Your task to perform on an android device: clear all cookies in the chrome app Image 0: 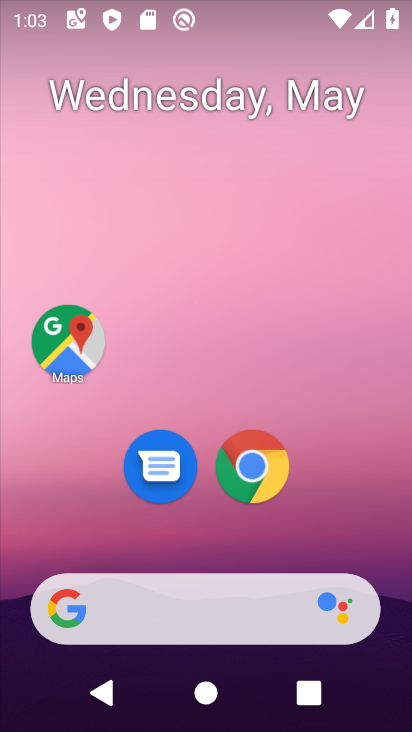
Step 0: click (261, 468)
Your task to perform on an android device: clear all cookies in the chrome app Image 1: 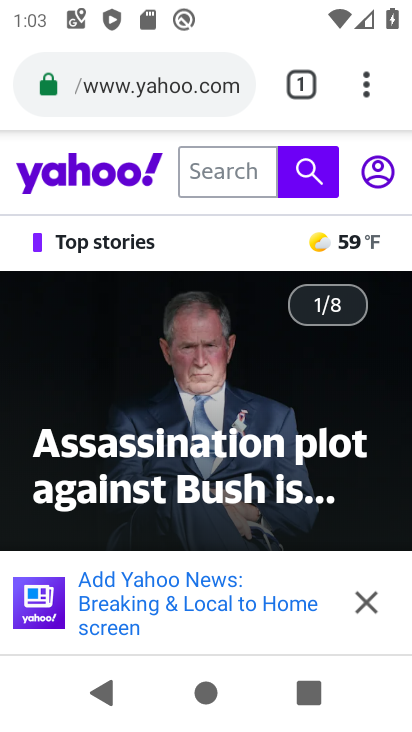
Step 1: click (359, 83)
Your task to perform on an android device: clear all cookies in the chrome app Image 2: 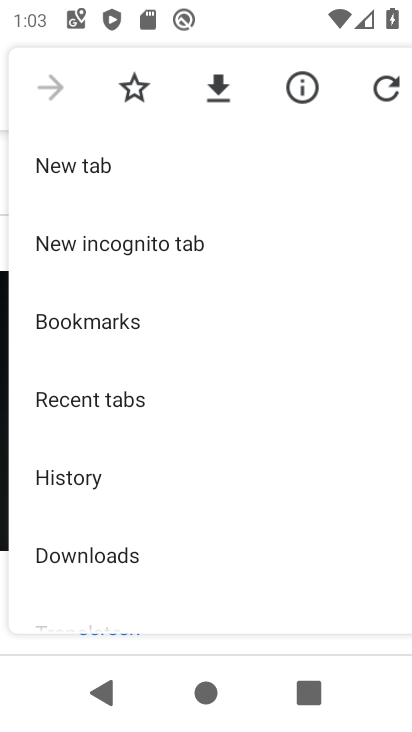
Step 2: drag from (256, 538) to (248, 74)
Your task to perform on an android device: clear all cookies in the chrome app Image 3: 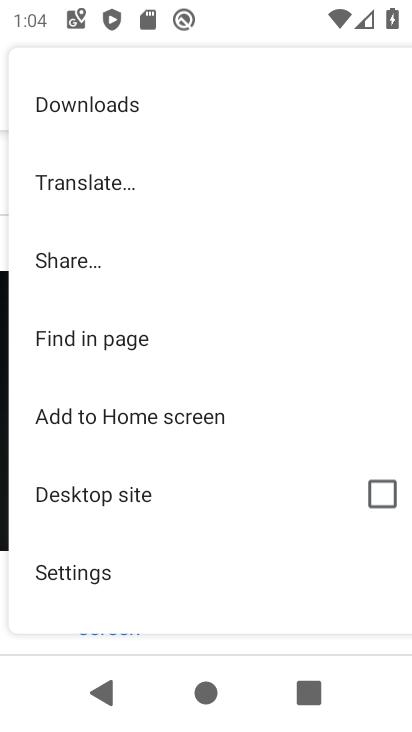
Step 3: drag from (196, 525) to (223, 139)
Your task to perform on an android device: clear all cookies in the chrome app Image 4: 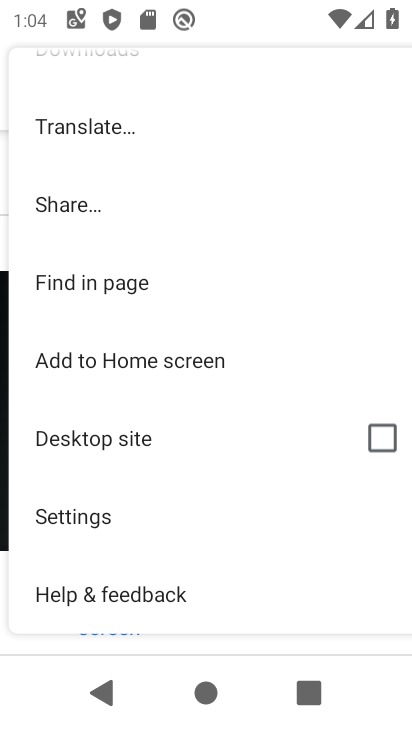
Step 4: click (112, 519)
Your task to perform on an android device: clear all cookies in the chrome app Image 5: 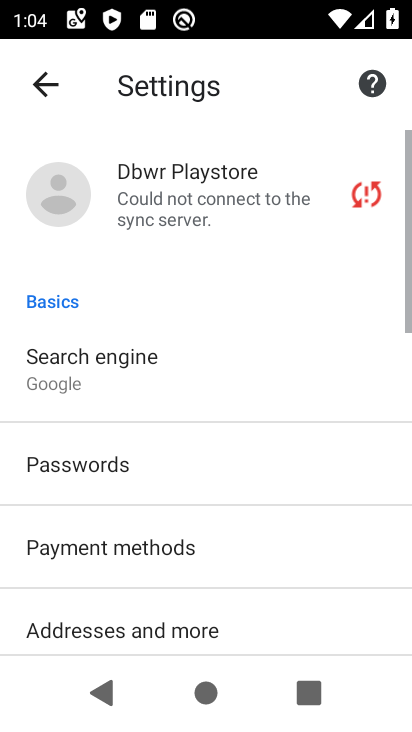
Step 5: drag from (212, 570) to (267, 228)
Your task to perform on an android device: clear all cookies in the chrome app Image 6: 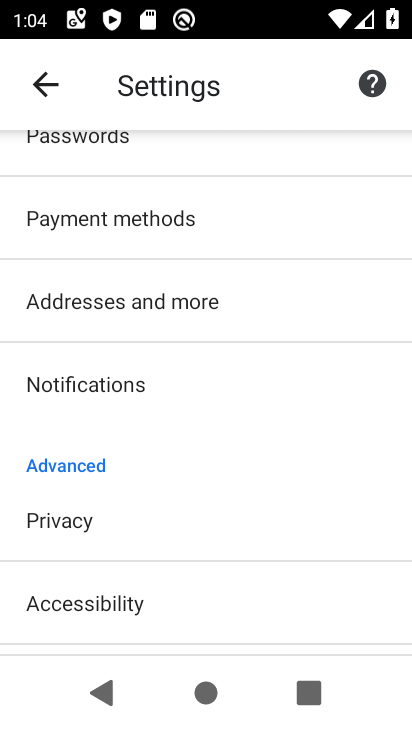
Step 6: click (88, 519)
Your task to perform on an android device: clear all cookies in the chrome app Image 7: 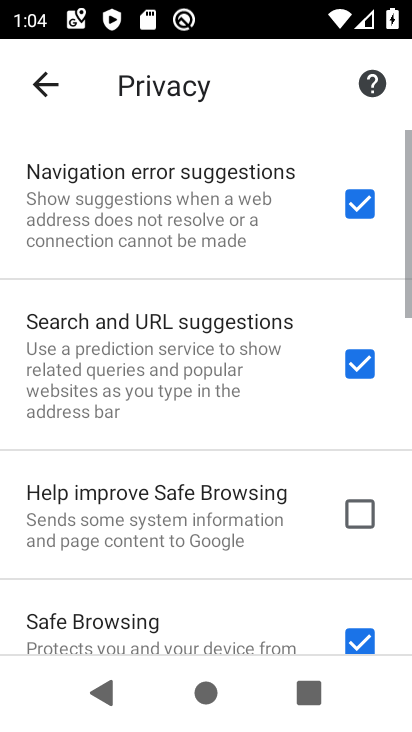
Step 7: drag from (224, 571) to (246, 20)
Your task to perform on an android device: clear all cookies in the chrome app Image 8: 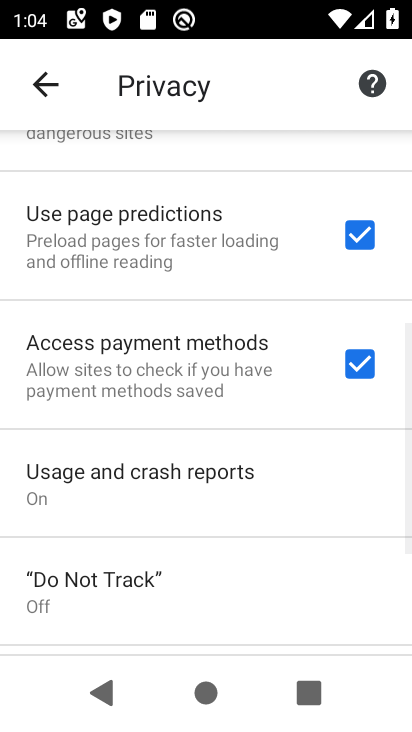
Step 8: drag from (189, 534) to (191, 183)
Your task to perform on an android device: clear all cookies in the chrome app Image 9: 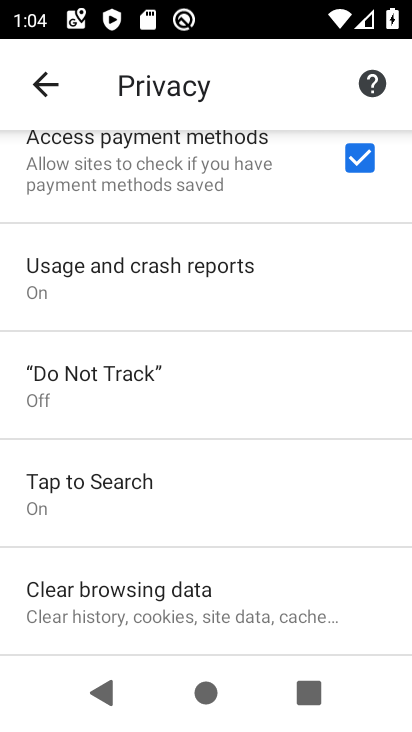
Step 9: click (189, 605)
Your task to perform on an android device: clear all cookies in the chrome app Image 10: 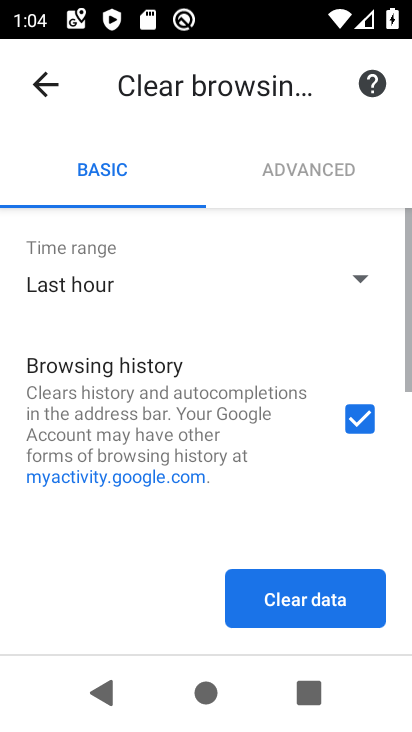
Step 10: drag from (146, 496) to (158, 297)
Your task to perform on an android device: clear all cookies in the chrome app Image 11: 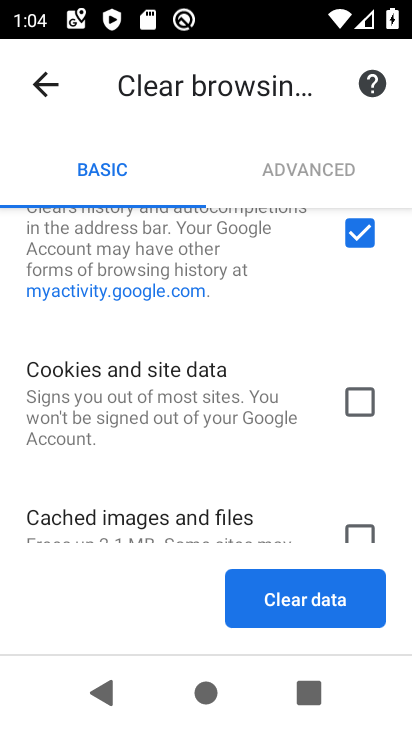
Step 11: drag from (183, 470) to (224, 334)
Your task to perform on an android device: clear all cookies in the chrome app Image 12: 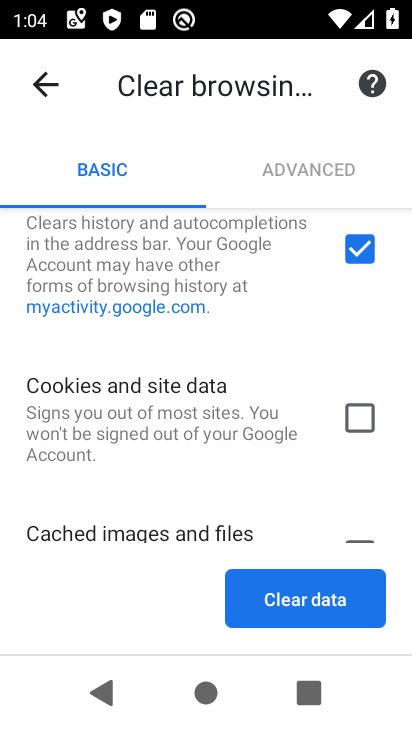
Step 12: click (357, 240)
Your task to perform on an android device: clear all cookies in the chrome app Image 13: 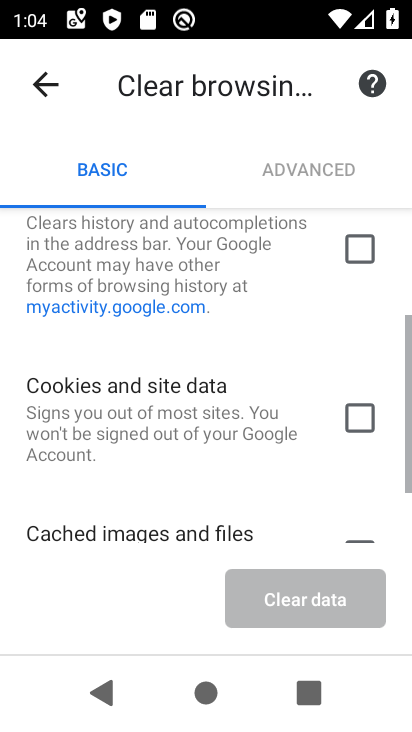
Step 13: click (355, 417)
Your task to perform on an android device: clear all cookies in the chrome app Image 14: 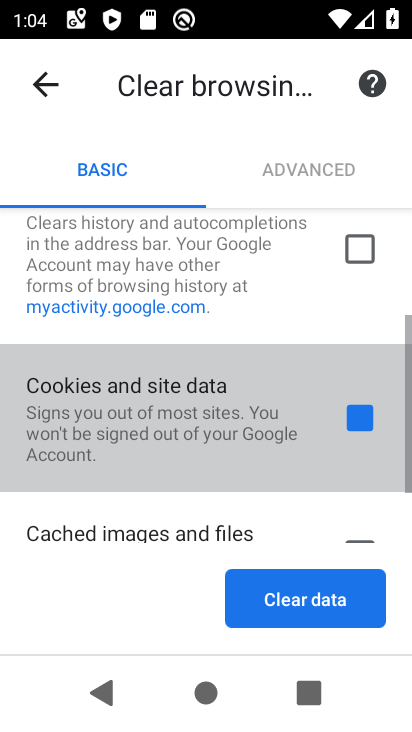
Step 14: drag from (194, 479) to (197, 323)
Your task to perform on an android device: clear all cookies in the chrome app Image 15: 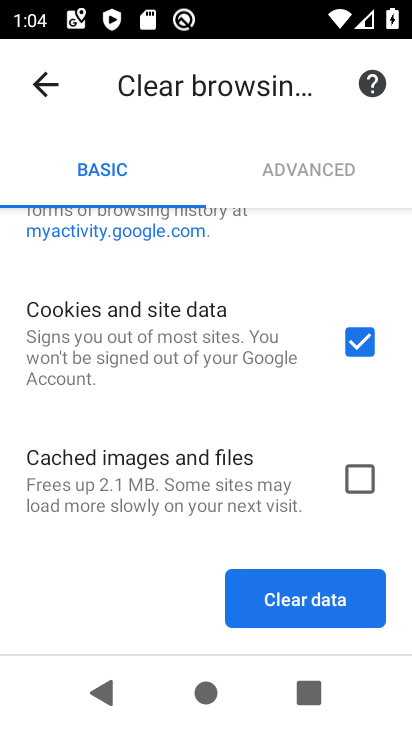
Step 15: click (287, 592)
Your task to perform on an android device: clear all cookies in the chrome app Image 16: 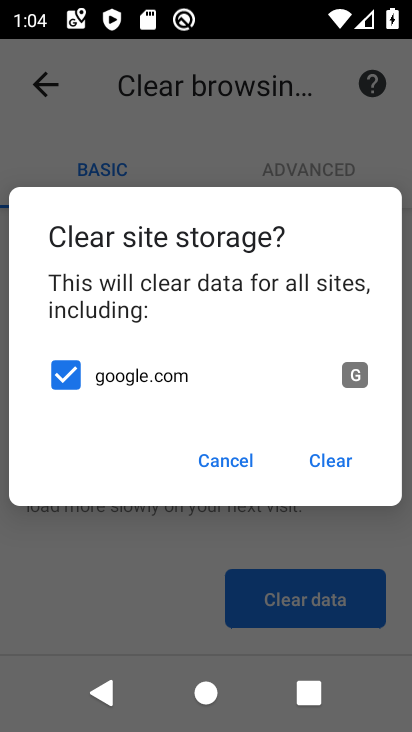
Step 16: click (325, 462)
Your task to perform on an android device: clear all cookies in the chrome app Image 17: 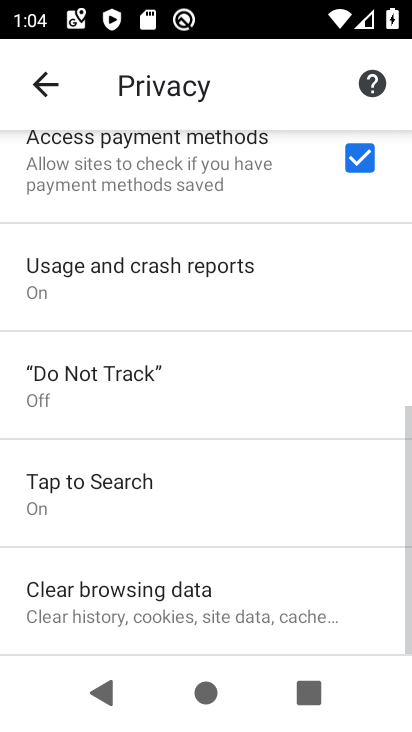
Step 17: task complete